Your task to perform on an android device: turn off data saver in the chrome app Image 0: 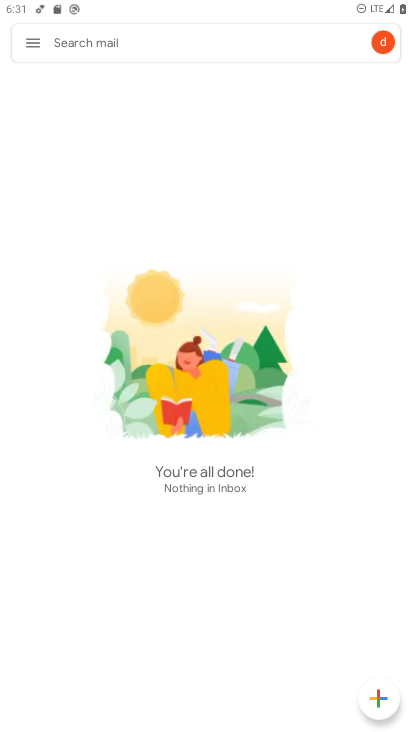
Step 0: press home button
Your task to perform on an android device: turn off data saver in the chrome app Image 1: 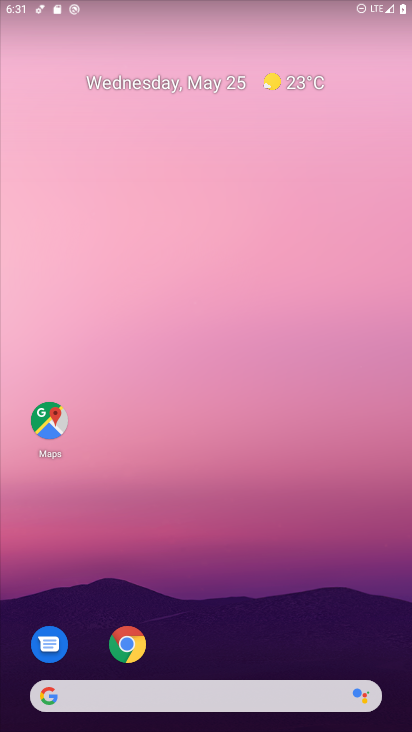
Step 1: drag from (408, 665) to (332, 71)
Your task to perform on an android device: turn off data saver in the chrome app Image 2: 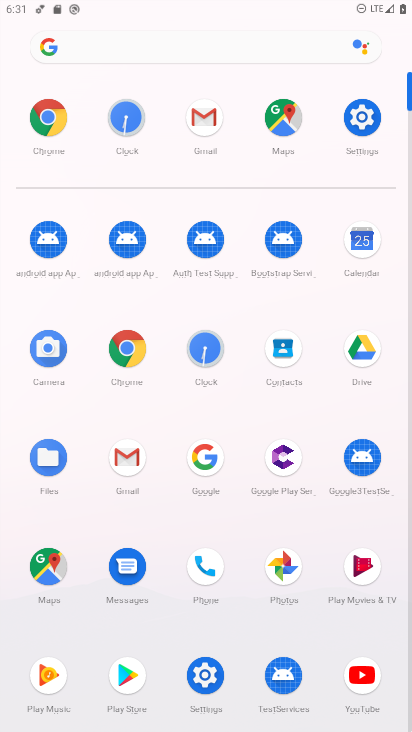
Step 2: click (125, 351)
Your task to perform on an android device: turn off data saver in the chrome app Image 3: 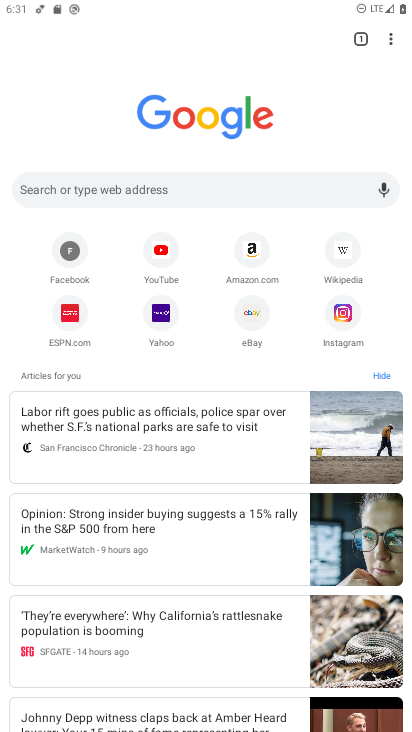
Step 3: click (395, 36)
Your task to perform on an android device: turn off data saver in the chrome app Image 4: 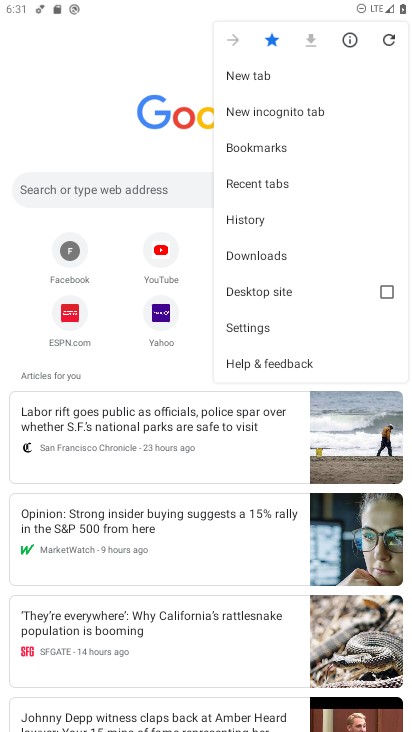
Step 4: click (251, 326)
Your task to perform on an android device: turn off data saver in the chrome app Image 5: 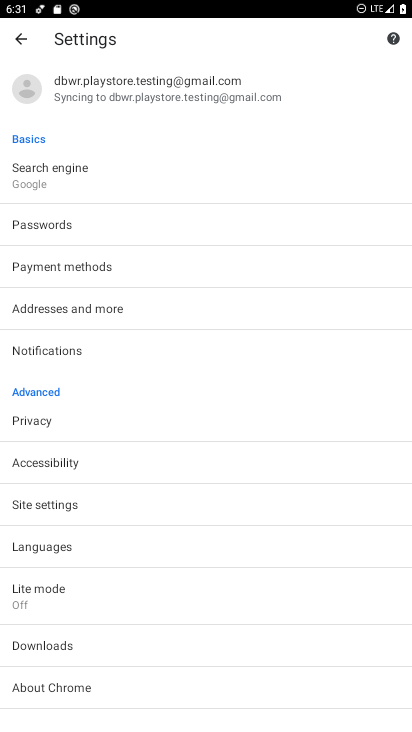
Step 5: click (97, 618)
Your task to perform on an android device: turn off data saver in the chrome app Image 6: 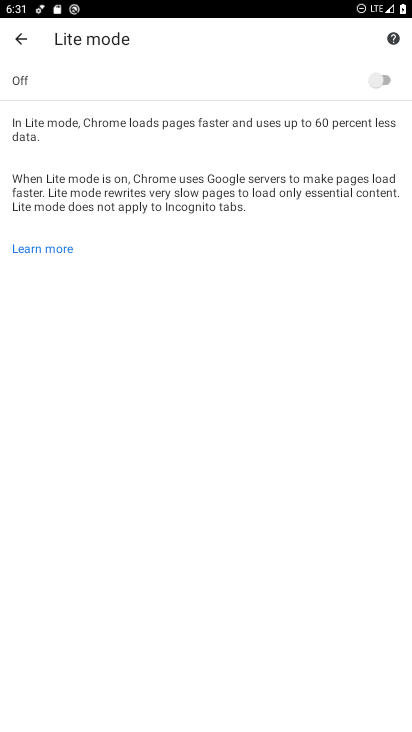
Step 6: task complete